Your task to perform on an android device: Open the calendar and show me this week's events? Image 0: 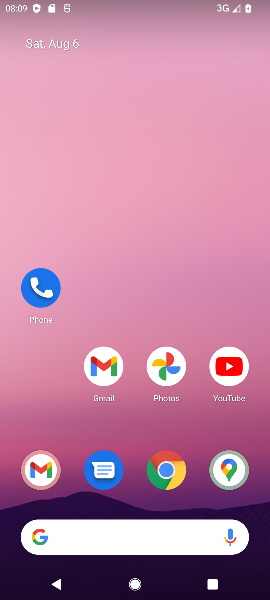
Step 0: drag from (198, 505) to (184, 53)
Your task to perform on an android device: Open the calendar and show me this week's events? Image 1: 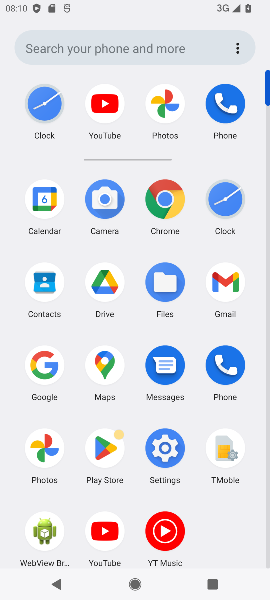
Step 1: click (41, 224)
Your task to perform on an android device: Open the calendar and show me this week's events? Image 2: 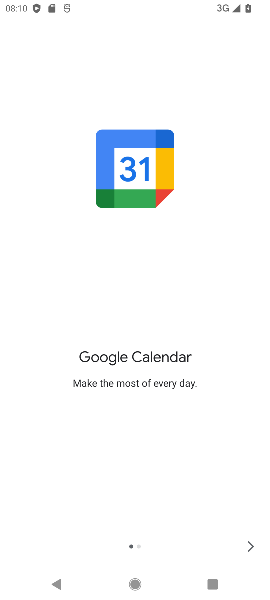
Step 2: click (244, 542)
Your task to perform on an android device: Open the calendar and show me this week's events? Image 3: 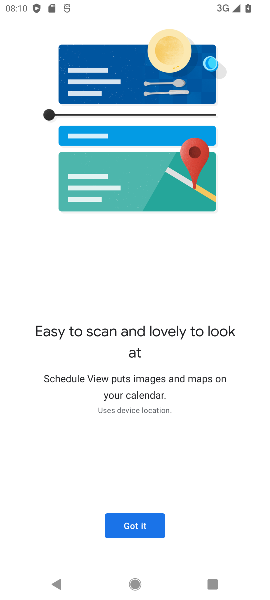
Step 3: click (142, 535)
Your task to perform on an android device: Open the calendar and show me this week's events? Image 4: 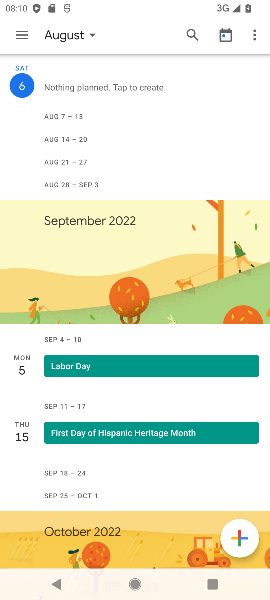
Step 4: click (90, 41)
Your task to perform on an android device: Open the calendar and show me this week's events? Image 5: 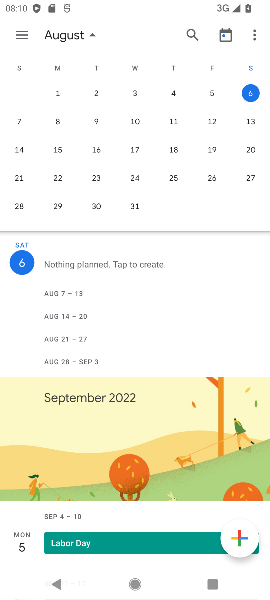
Step 5: click (259, 116)
Your task to perform on an android device: Open the calendar and show me this week's events? Image 6: 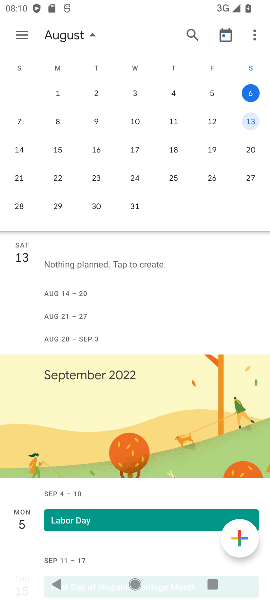
Step 6: task complete